Your task to perform on an android device: toggle notification dots Image 0: 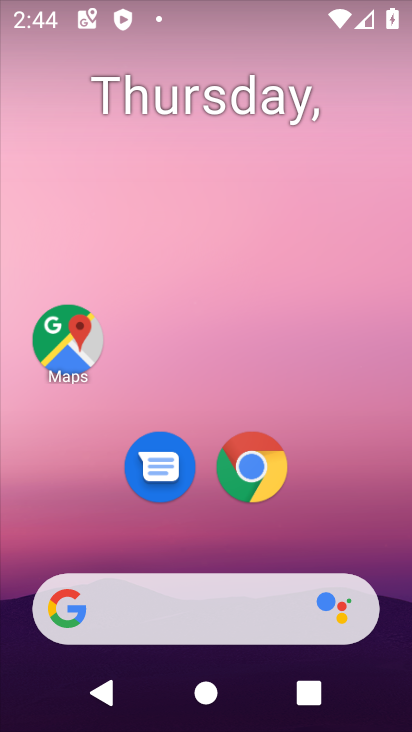
Step 0: drag from (188, 552) to (267, 89)
Your task to perform on an android device: toggle notification dots Image 1: 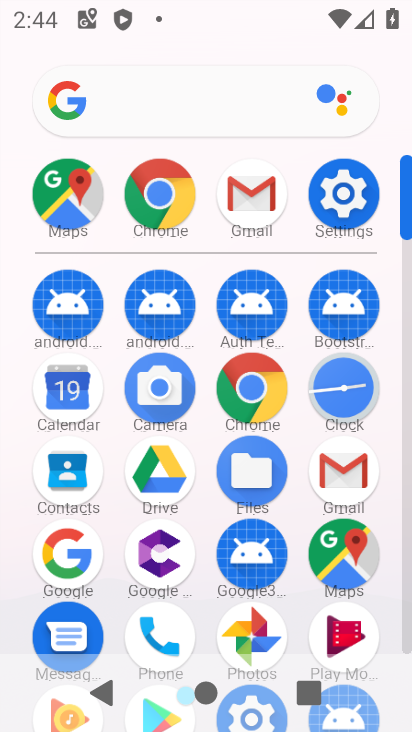
Step 1: click (356, 185)
Your task to perform on an android device: toggle notification dots Image 2: 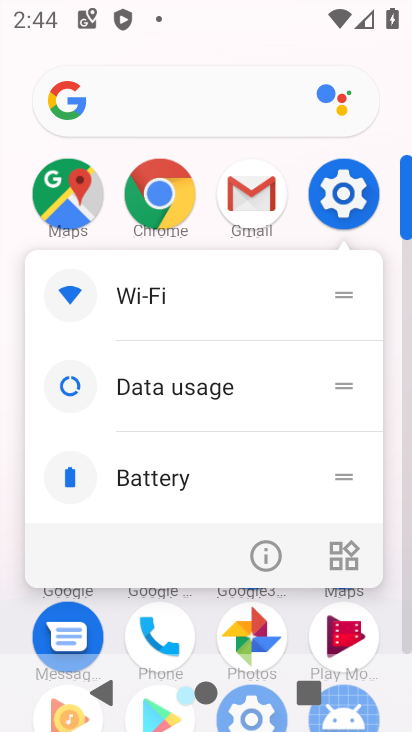
Step 2: click (259, 550)
Your task to perform on an android device: toggle notification dots Image 3: 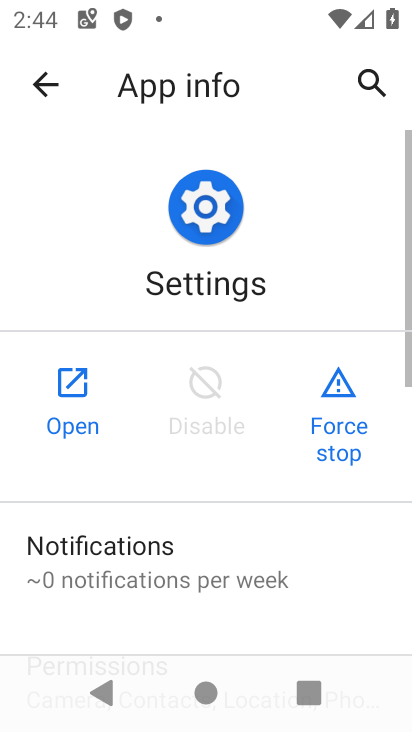
Step 3: click (80, 381)
Your task to perform on an android device: toggle notification dots Image 4: 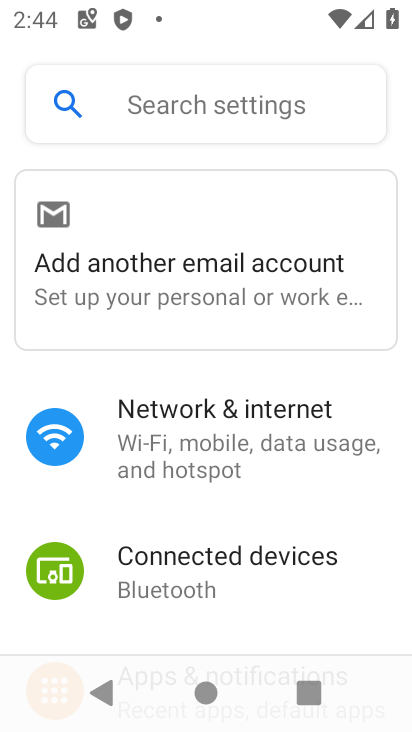
Step 4: drag from (214, 528) to (238, 206)
Your task to perform on an android device: toggle notification dots Image 5: 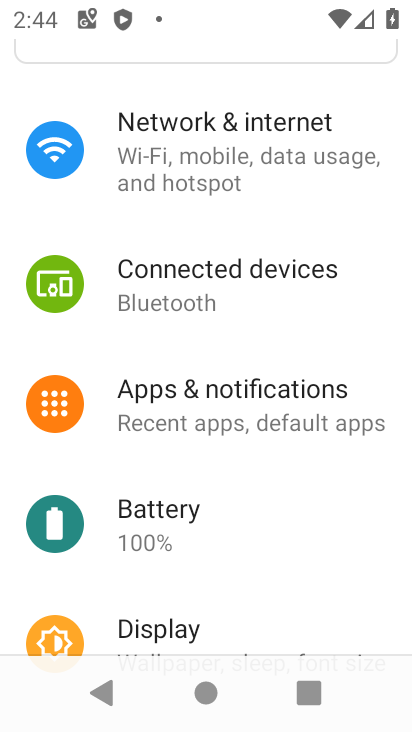
Step 5: drag from (228, 539) to (239, 285)
Your task to perform on an android device: toggle notification dots Image 6: 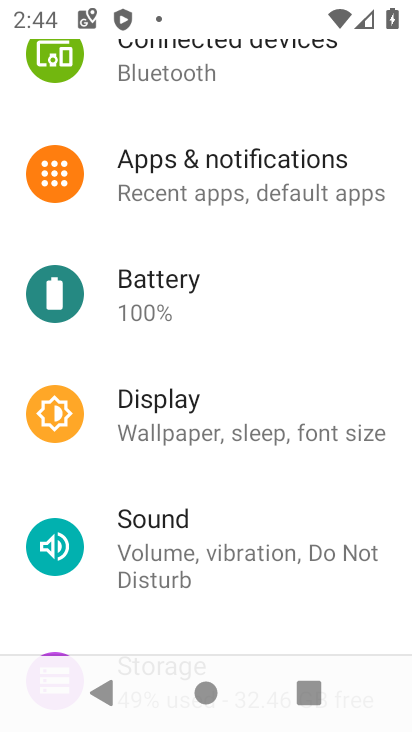
Step 6: drag from (227, 283) to (252, 544)
Your task to perform on an android device: toggle notification dots Image 7: 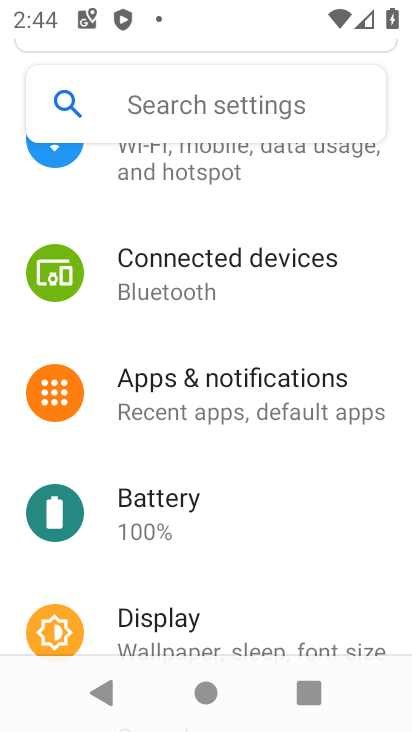
Step 7: drag from (246, 211) to (272, 415)
Your task to perform on an android device: toggle notification dots Image 8: 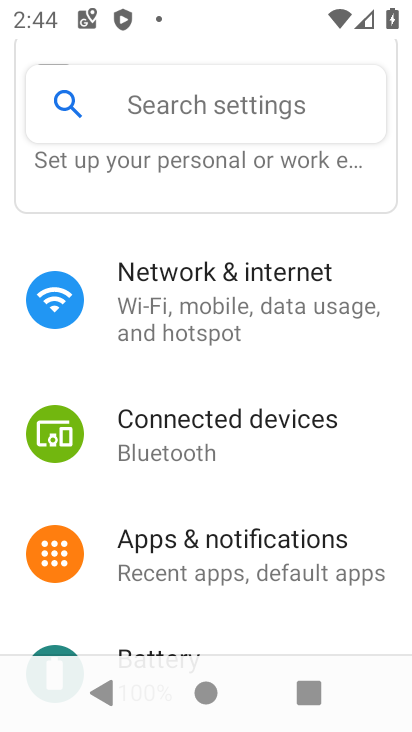
Step 8: drag from (256, 399) to (297, 229)
Your task to perform on an android device: toggle notification dots Image 9: 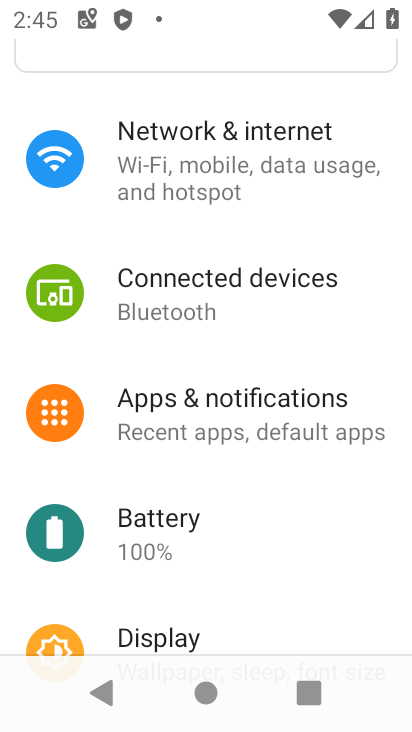
Step 9: click (207, 445)
Your task to perform on an android device: toggle notification dots Image 10: 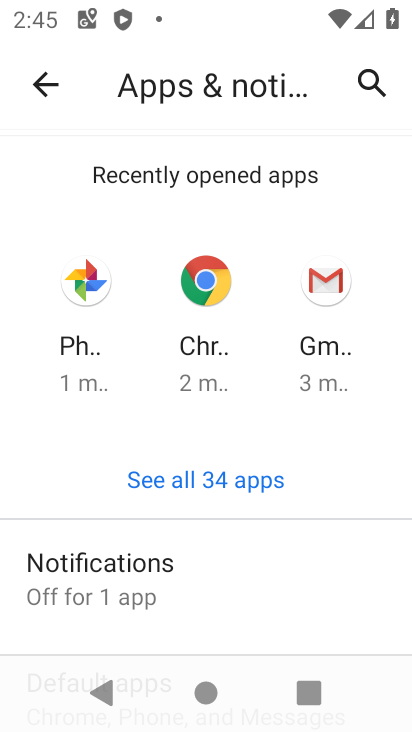
Step 10: drag from (190, 570) to (302, 193)
Your task to perform on an android device: toggle notification dots Image 11: 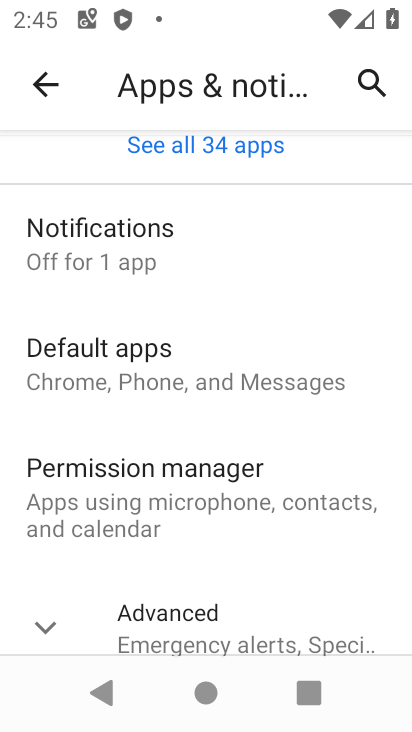
Step 11: click (215, 236)
Your task to perform on an android device: toggle notification dots Image 12: 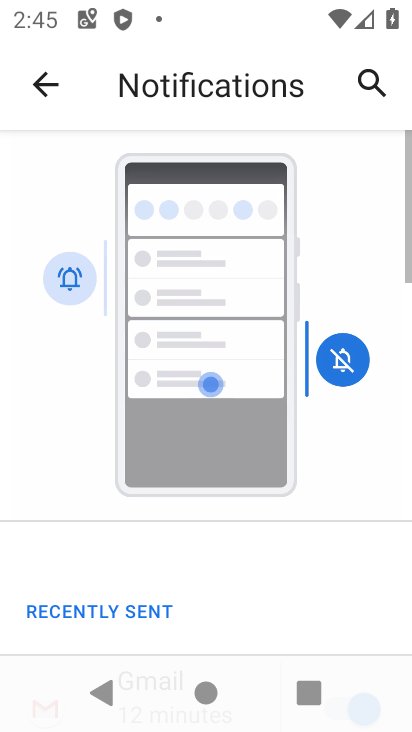
Step 12: drag from (210, 597) to (260, 138)
Your task to perform on an android device: toggle notification dots Image 13: 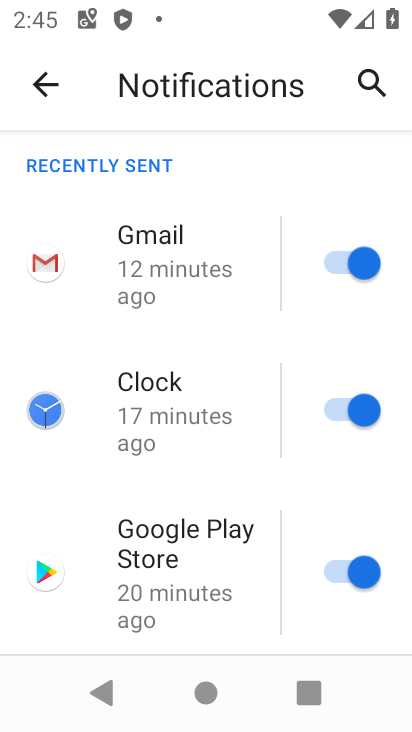
Step 13: drag from (227, 620) to (250, 163)
Your task to perform on an android device: toggle notification dots Image 14: 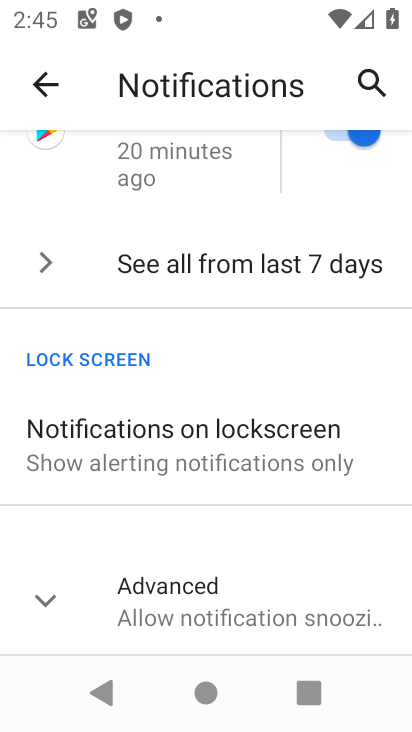
Step 14: drag from (203, 601) to (261, 217)
Your task to perform on an android device: toggle notification dots Image 15: 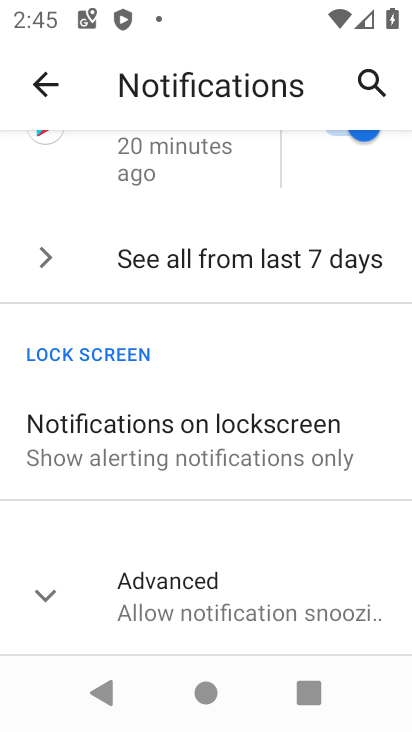
Step 15: click (155, 585)
Your task to perform on an android device: toggle notification dots Image 16: 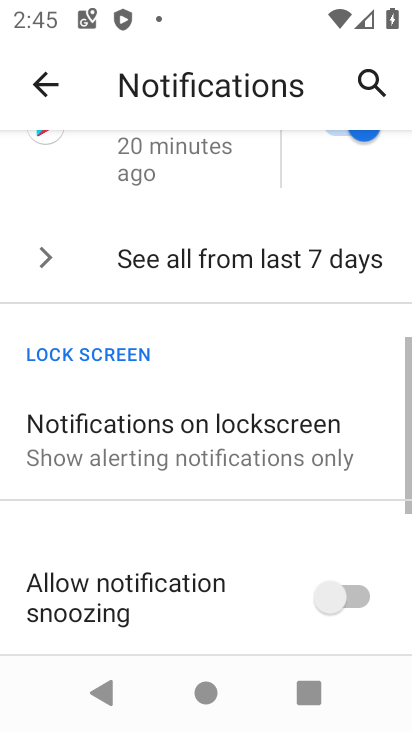
Step 16: drag from (217, 620) to (215, 219)
Your task to perform on an android device: toggle notification dots Image 17: 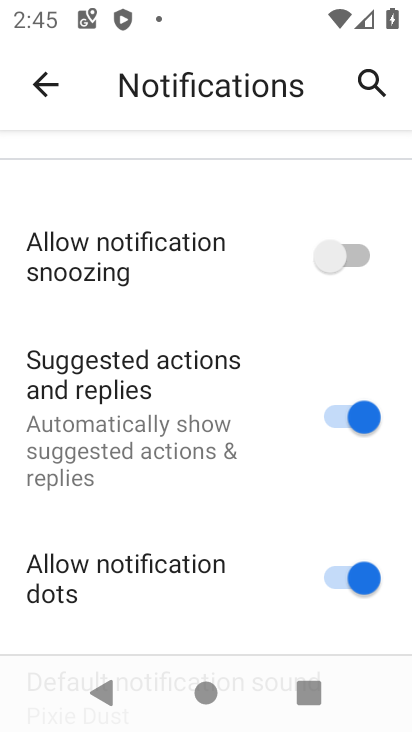
Step 17: click (340, 587)
Your task to perform on an android device: toggle notification dots Image 18: 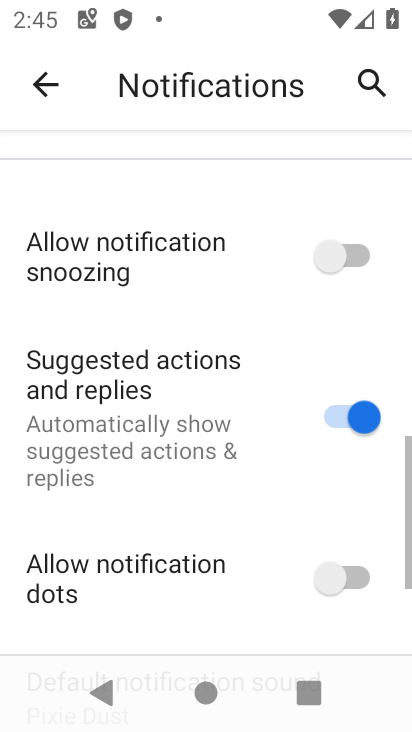
Step 18: task complete